Your task to perform on an android device: Open privacy settings Image 0: 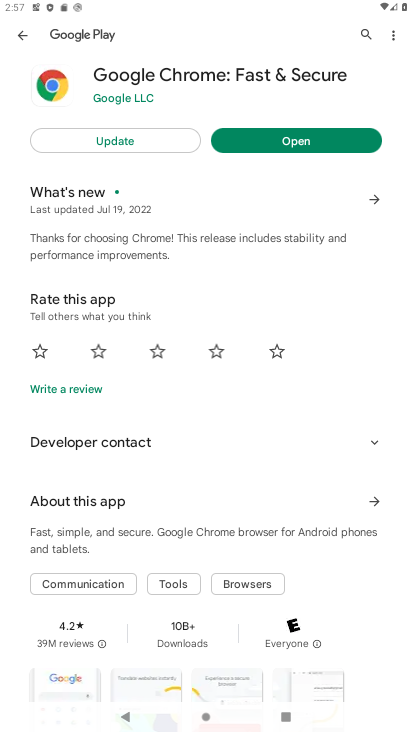
Step 0: press home button
Your task to perform on an android device: Open privacy settings Image 1: 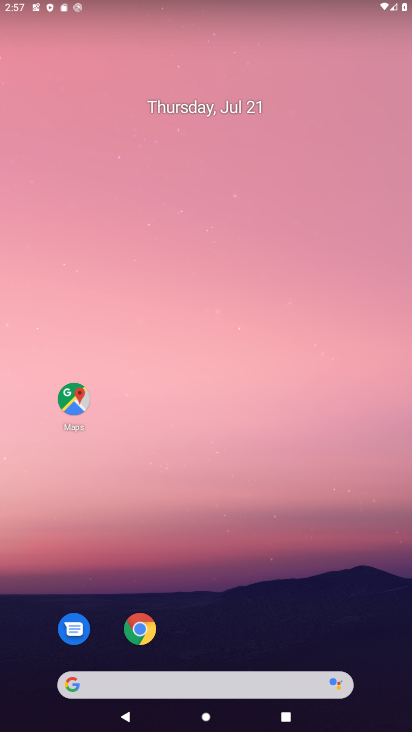
Step 1: drag from (399, 714) to (371, 18)
Your task to perform on an android device: Open privacy settings Image 2: 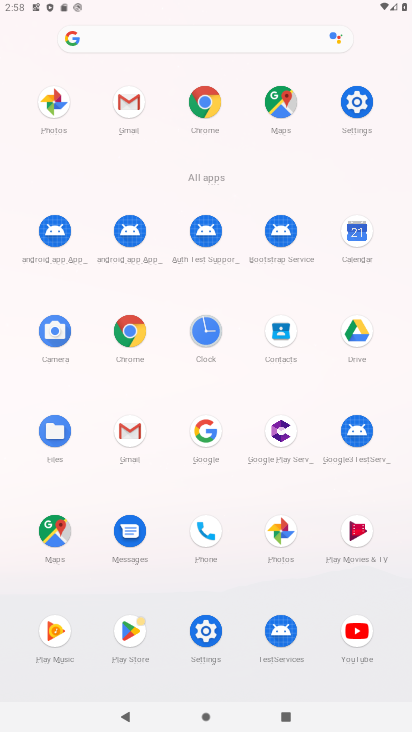
Step 2: click (354, 102)
Your task to perform on an android device: Open privacy settings Image 3: 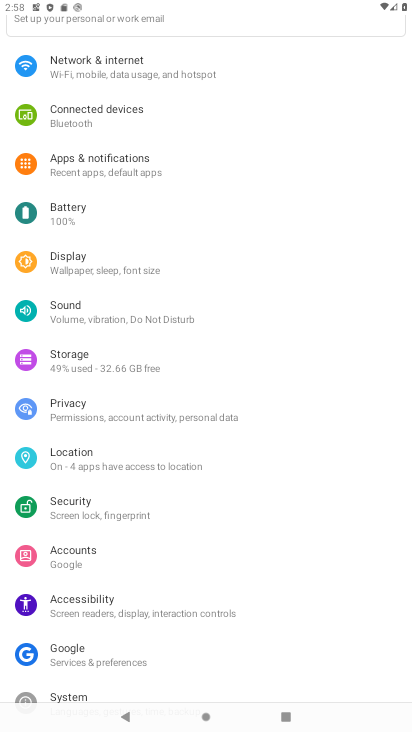
Step 3: click (73, 397)
Your task to perform on an android device: Open privacy settings Image 4: 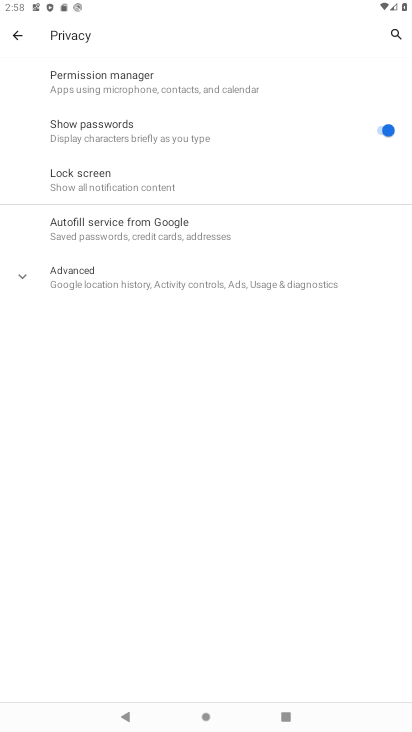
Step 4: click (10, 273)
Your task to perform on an android device: Open privacy settings Image 5: 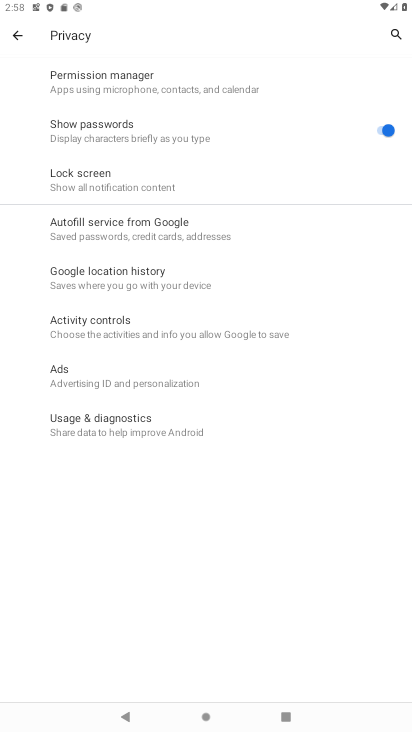
Step 5: task complete